Your task to perform on an android device: Open settings on Google Maps Image 0: 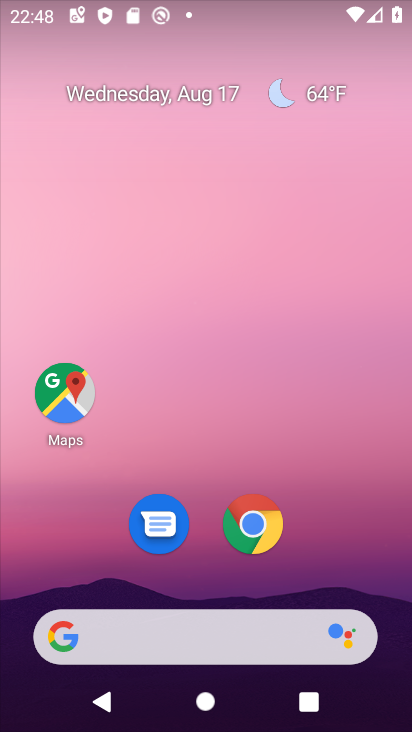
Step 0: click (69, 390)
Your task to perform on an android device: Open settings on Google Maps Image 1: 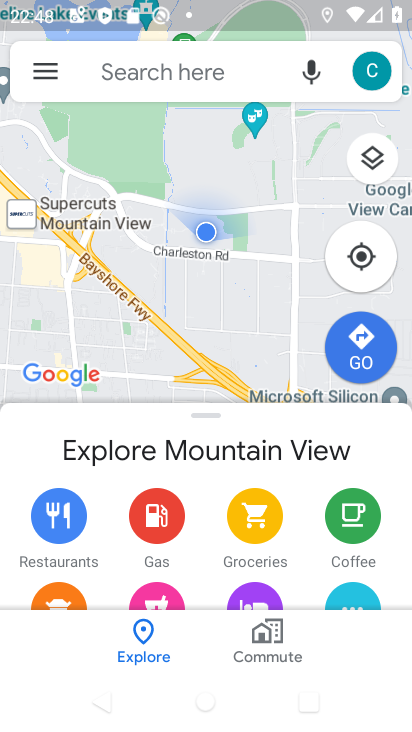
Step 1: click (52, 69)
Your task to perform on an android device: Open settings on Google Maps Image 2: 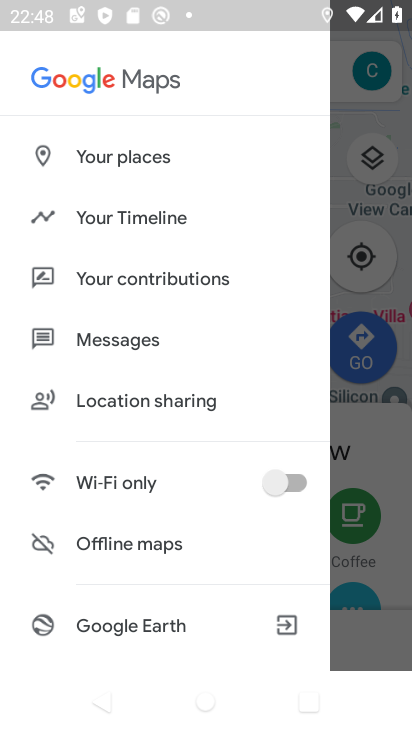
Step 2: drag from (165, 474) to (198, 1)
Your task to perform on an android device: Open settings on Google Maps Image 3: 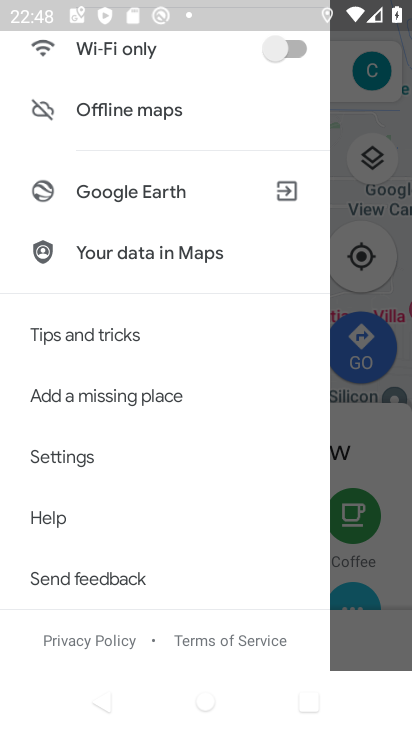
Step 3: click (109, 454)
Your task to perform on an android device: Open settings on Google Maps Image 4: 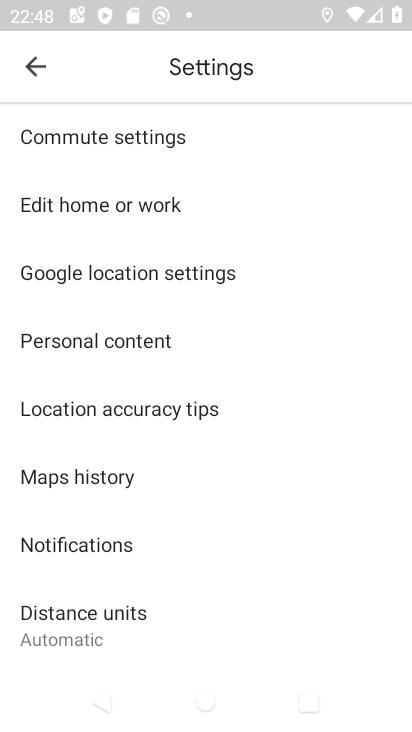
Step 4: task complete